Your task to perform on an android device: How much does a 2 bedroom apartment rent for in Chicago? Image 0: 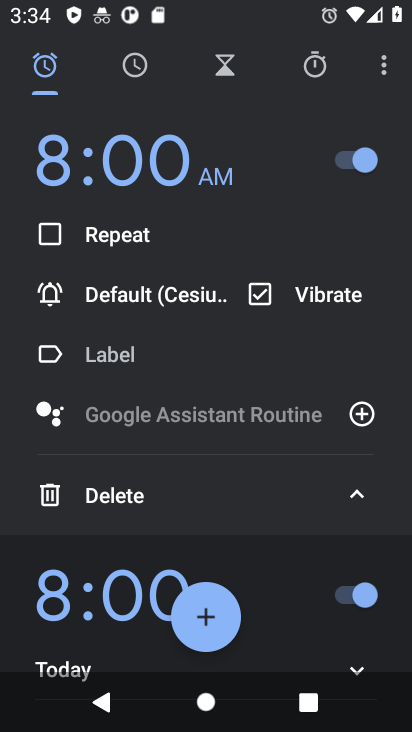
Step 0: press home button
Your task to perform on an android device: How much does a 2 bedroom apartment rent for in Chicago? Image 1: 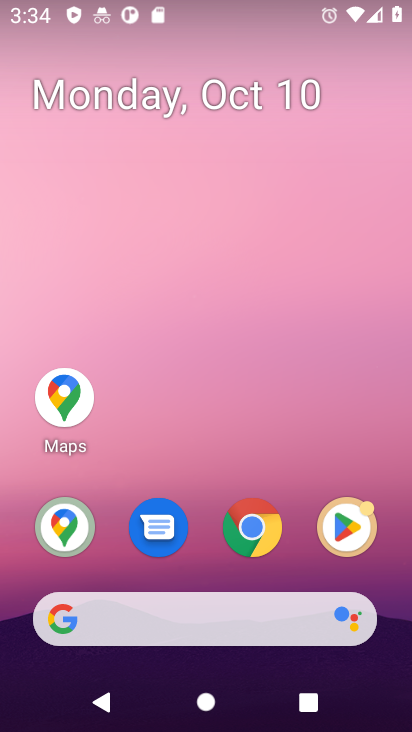
Step 1: click (253, 526)
Your task to perform on an android device: How much does a 2 bedroom apartment rent for in Chicago? Image 2: 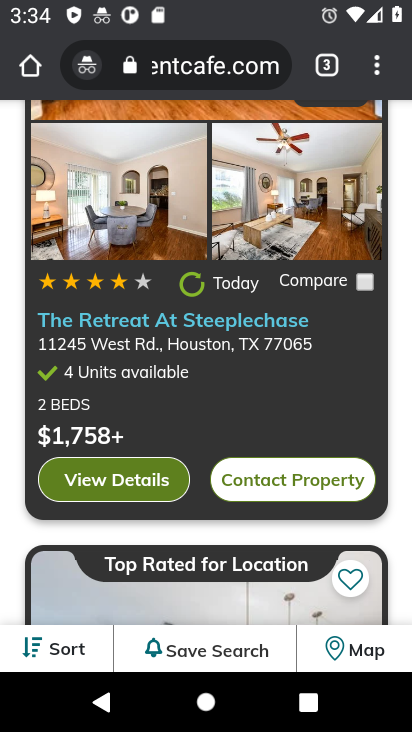
Step 2: click (243, 61)
Your task to perform on an android device: How much does a 2 bedroom apartment rent for in Chicago? Image 3: 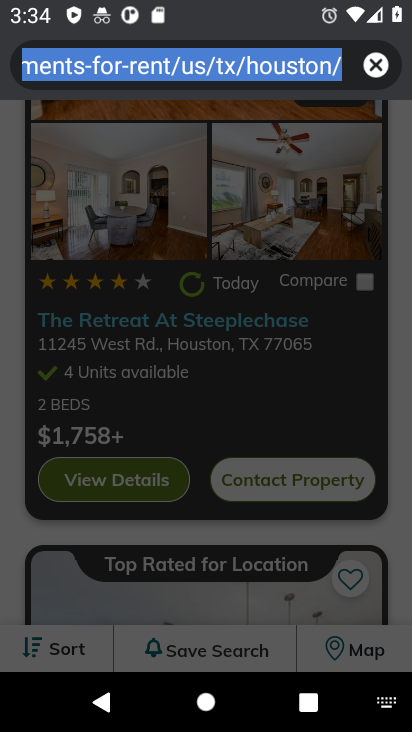
Step 3: click (375, 63)
Your task to perform on an android device: How much does a 2 bedroom apartment rent for in Chicago? Image 4: 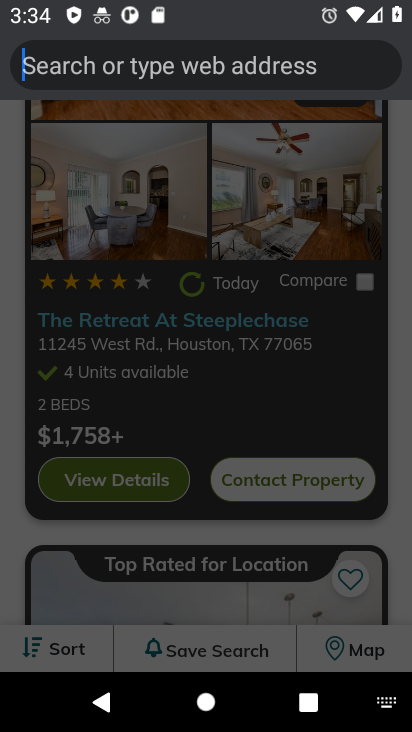
Step 4: type "How much does a 2 bedroom apartment rent for in Chicago?"
Your task to perform on an android device: How much does a 2 bedroom apartment rent for in Chicago? Image 5: 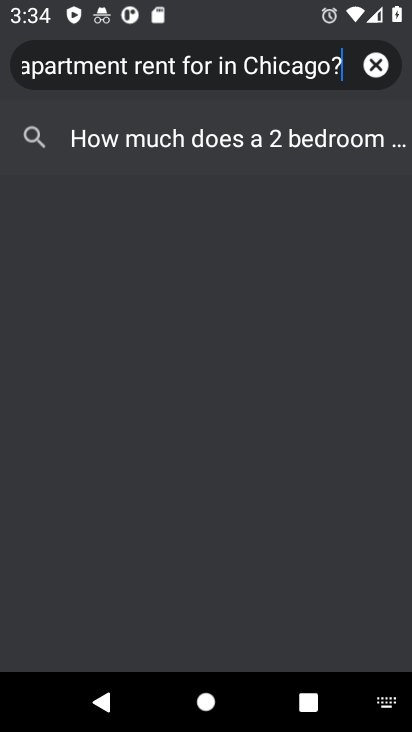
Step 5: click (210, 138)
Your task to perform on an android device: How much does a 2 bedroom apartment rent for in Chicago? Image 6: 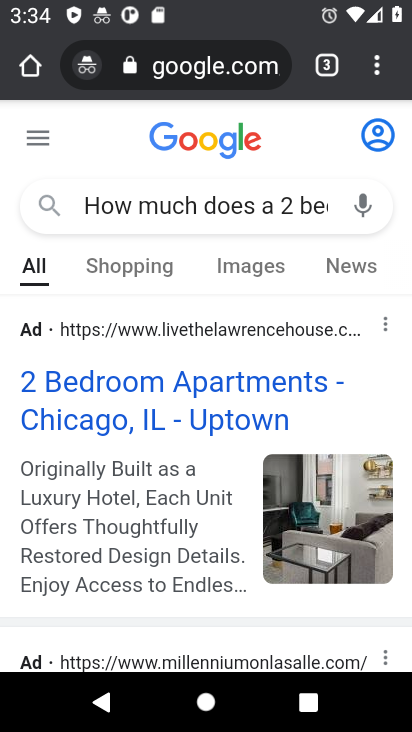
Step 6: drag from (175, 599) to (264, 346)
Your task to perform on an android device: How much does a 2 bedroom apartment rent for in Chicago? Image 7: 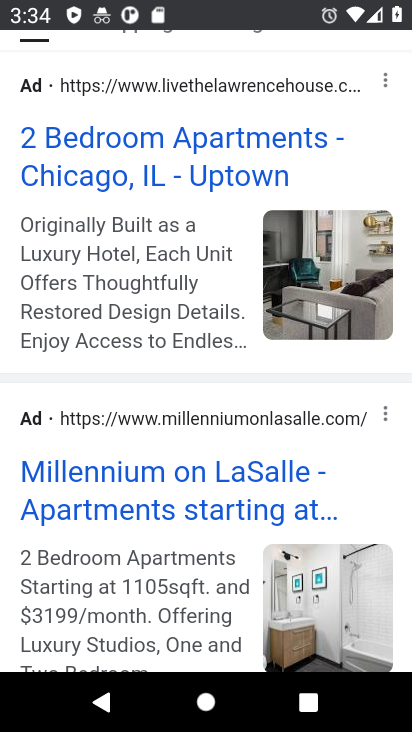
Step 7: drag from (220, 507) to (295, 315)
Your task to perform on an android device: How much does a 2 bedroom apartment rent for in Chicago? Image 8: 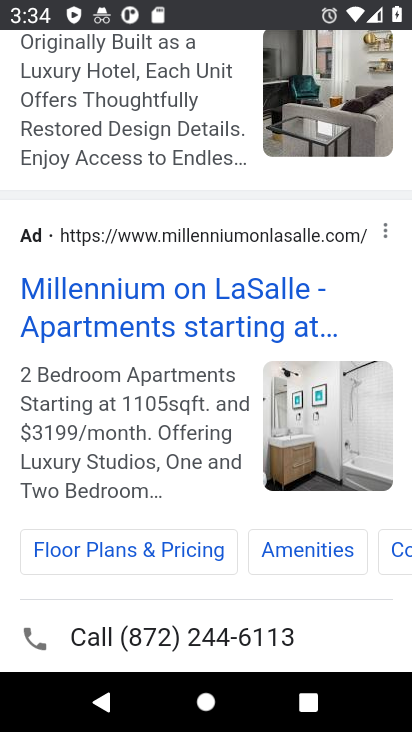
Step 8: drag from (192, 599) to (276, 372)
Your task to perform on an android device: How much does a 2 bedroom apartment rent for in Chicago? Image 9: 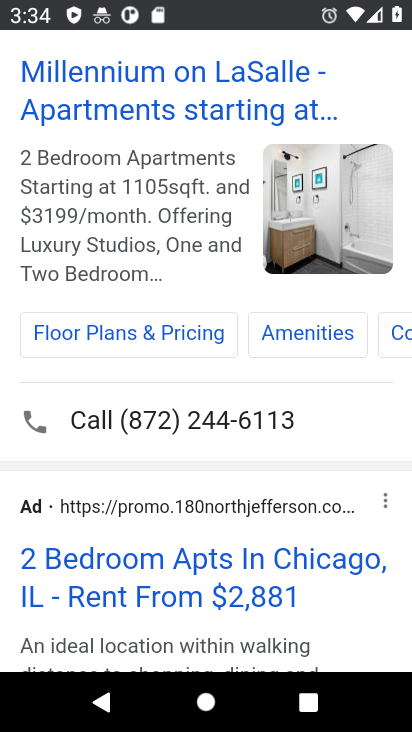
Step 9: drag from (220, 556) to (302, 384)
Your task to perform on an android device: How much does a 2 bedroom apartment rent for in Chicago? Image 10: 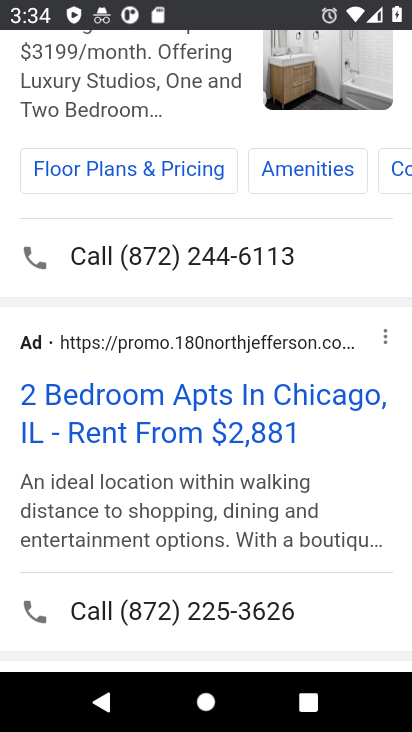
Step 10: drag from (219, 611) to (302, 428)
Your task to perform on an android device: How much does a 2 bedroom apartment rent for in Chicago? Image 11: 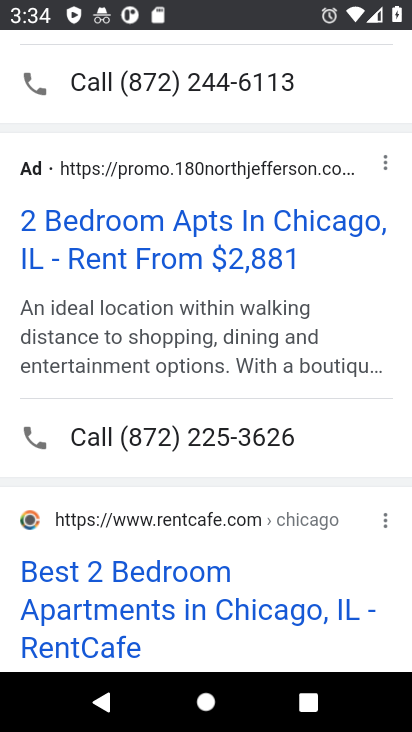
Step 11: drag from (229, 605) to (312, 451)
Your task to perform on an android device: How much does a 2 bedroom apartment rent for in Chicago? Image 12: 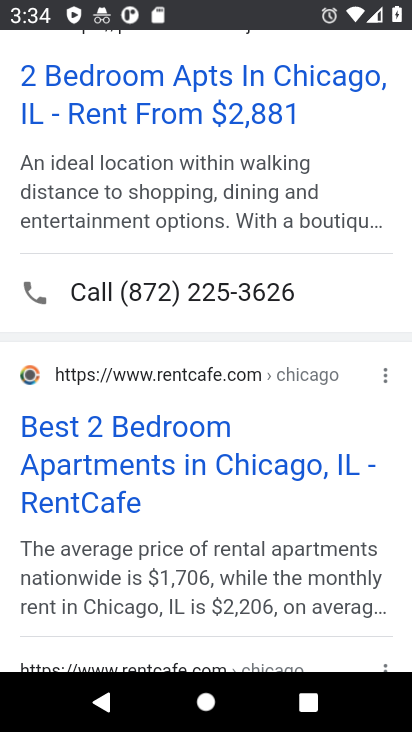
Step 12: click (274, 473)
Your task to perform on an android device: How much does a 2 bedroom apartment rent for in Chicago? Image 13: 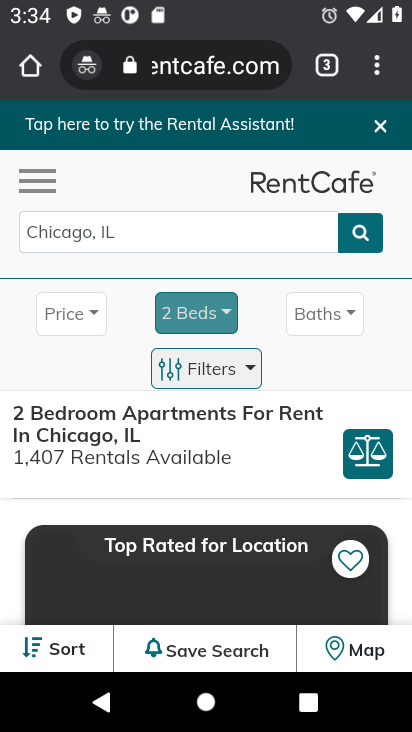
Step 13: task complete